Your task to perform on an android device: Go to wifi settings Image 0: 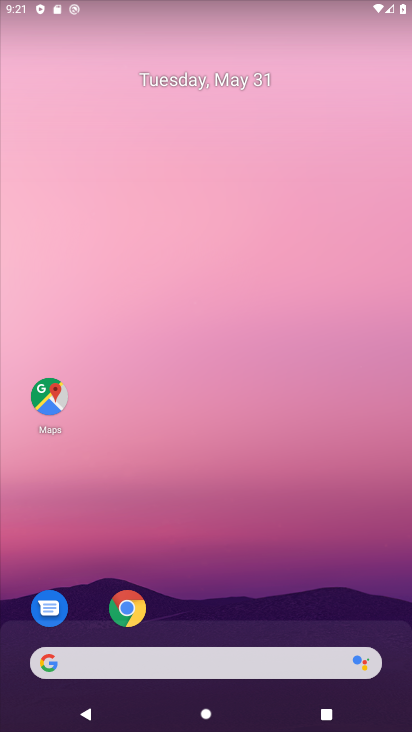
Step 0: drag from (235, 612) to (227, 19)
Your task to perform on an android device: Go to wifi settings Image 1: 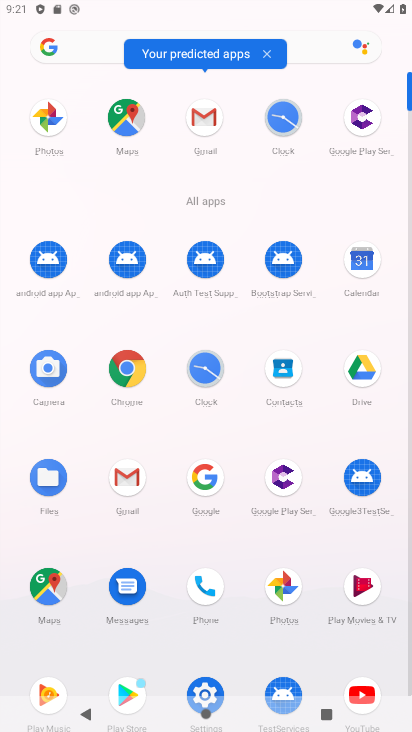
Step 1: click (207, 685)
Your task to perform on an android device: Go to wifi settings Image 2: 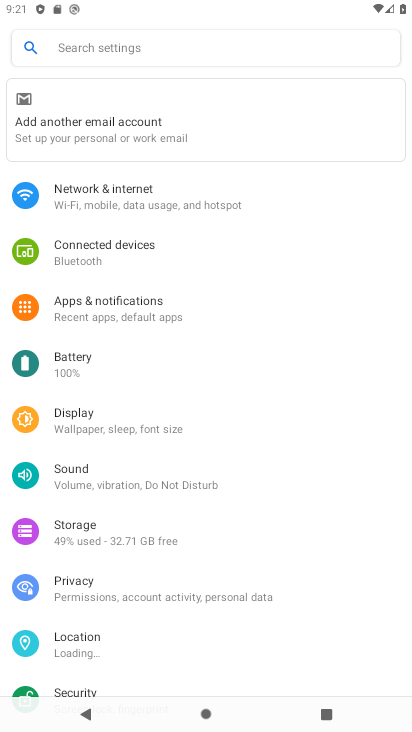
Step 2: click (101, 204)
Your task to perform on an android device: Go to wifi settings Image 3: 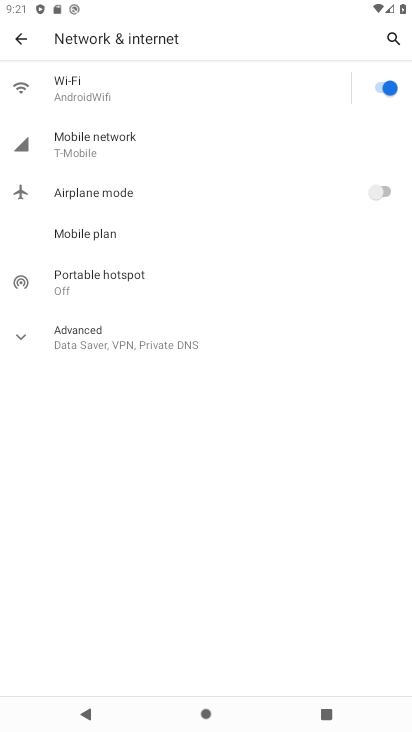
Step 3: task complete